Your task to perform on an android device: set an alarm Image 0: 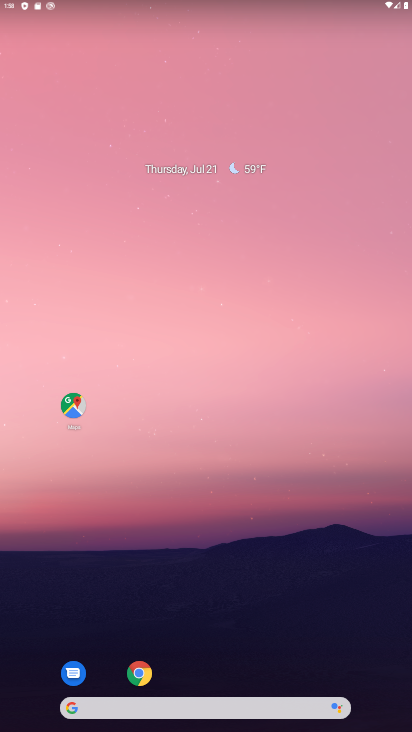
Step 0: drag from (183, 704) to (112, 101)
Your task to perform on an android device: set an alarm Image 1: 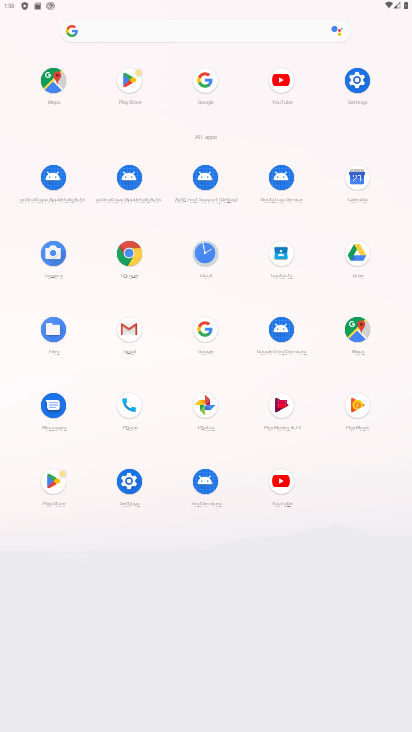
Step 1: click (207, 252)
Your task to perform on an android device: set an alarm Image 2: 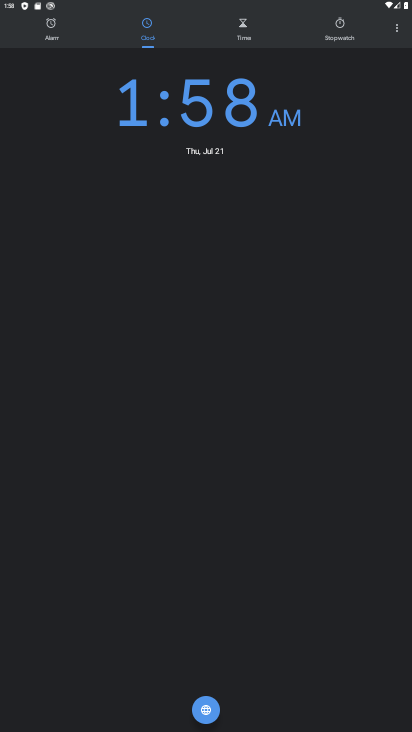
Step 2: click (53, 27)
Your task to perform on an android device: set an alarm Image 3: 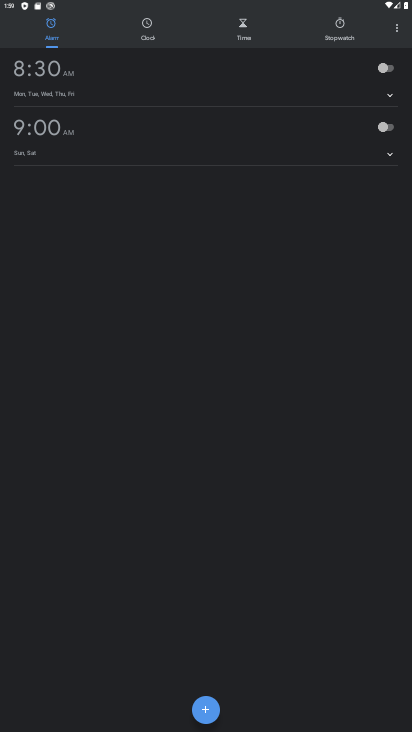
Step 3: click (207, 709)
Your task to perform on an android device: set an alarm Image 4: 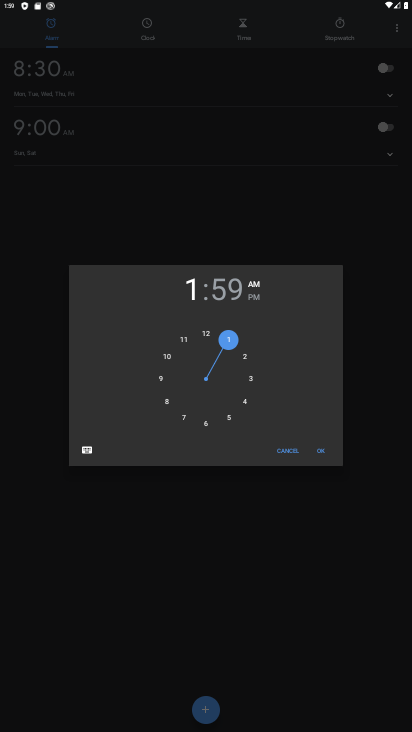
Step 4: click (166, 360)
Your task to perform on an android device: set an alarm Image 5: 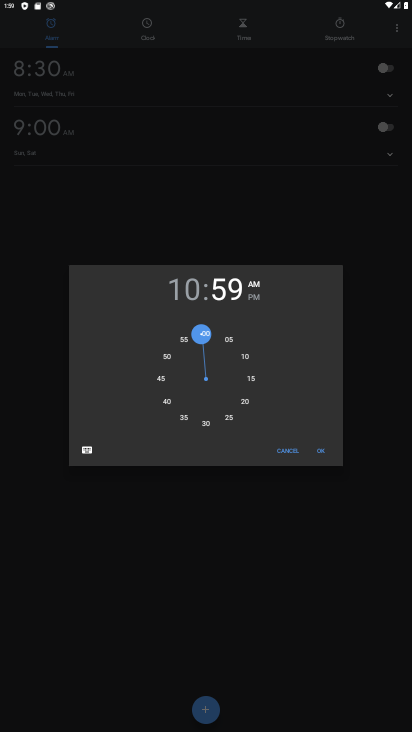
Step 5: click (160, 381)
Your task to perform on an android device: set an alarm Image 6: 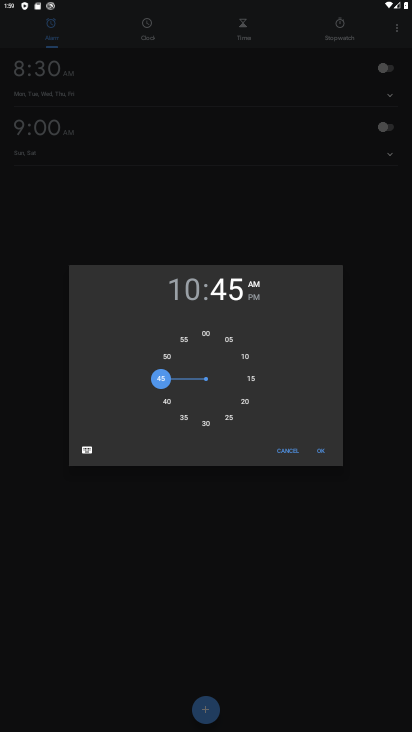
Step 6: click (254, 296)
Your task to perform on an android device: set an alarm Image 7: 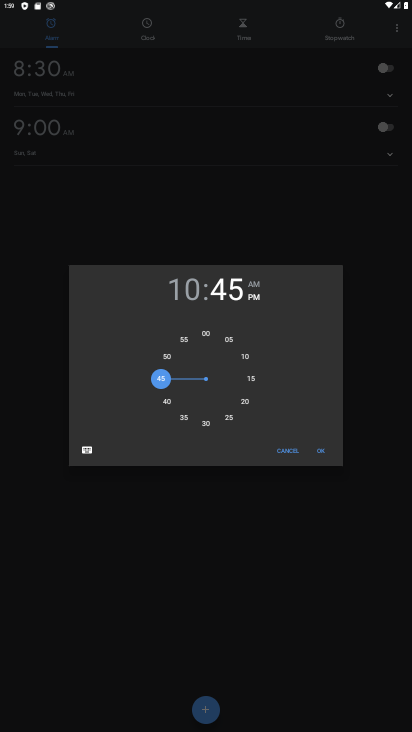
Step 7: click (320, 447)
Your task to perform on an android device: set an alarm Image 8: 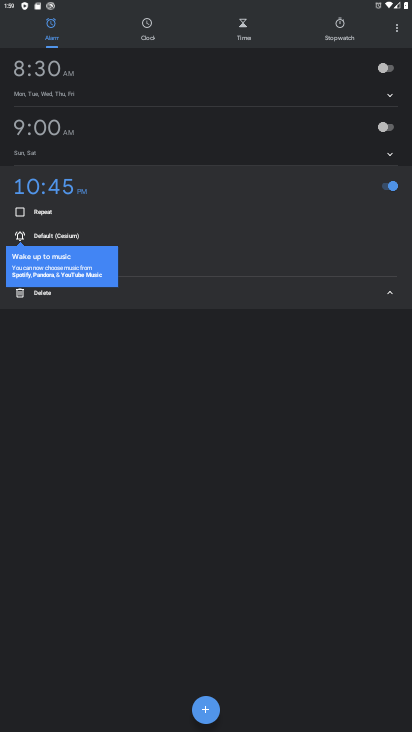
Step 8: task complete